Your task to perform on an android device: What's on my calendar tomorrow? Image 0: 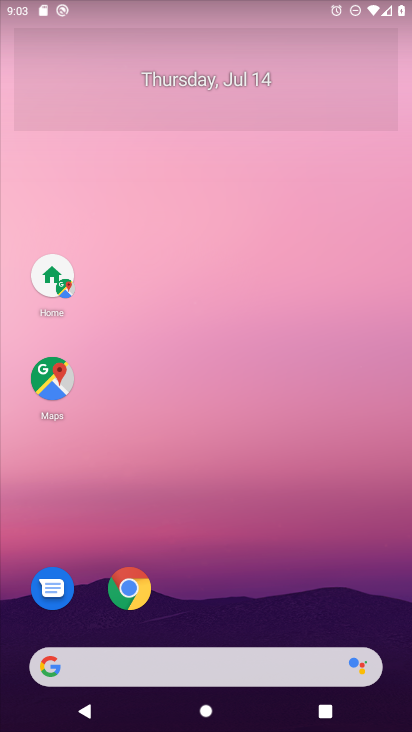
Step 0: drag from (30, 694) to (318, 162)
Your task to perform on an android device: What's on my calendar tomorrow? Image 1: 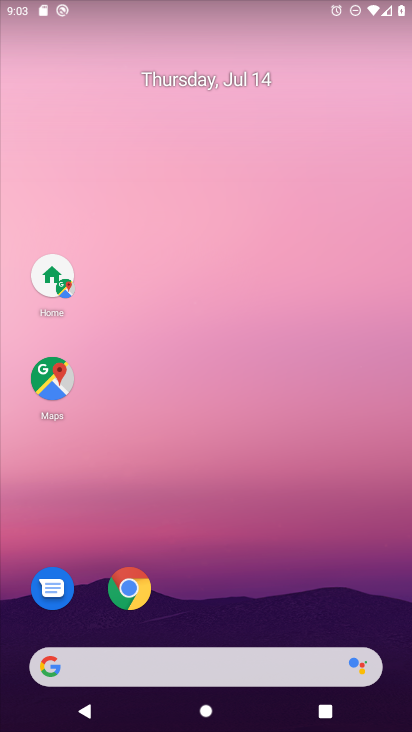
Step 1: drag from (20, 717) to (367, 126)
Your task to perform on an android device: What's on my calendar tomorrow? Image 2: 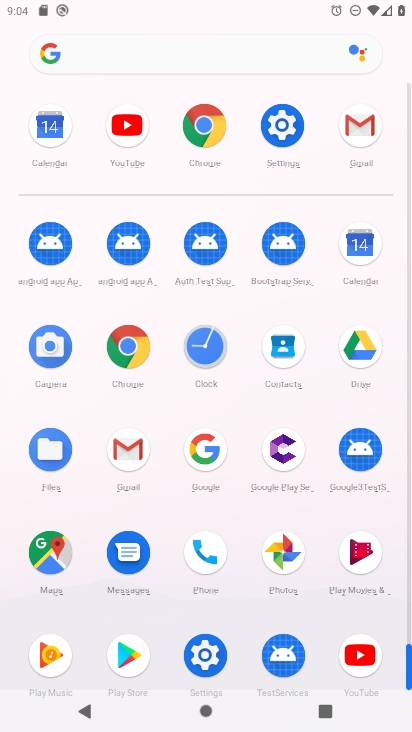
Step 2: click (357, 252)
Your task to perform on an android device: What's on my calendar tomorrow? Image 3: 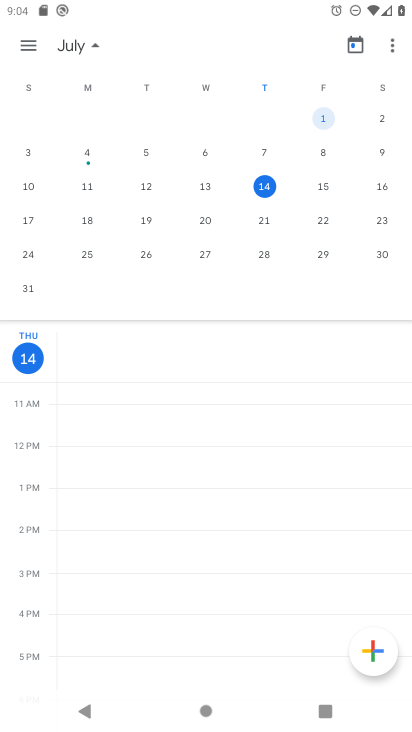
Step 3: task complete